Your task to perform on an android device: toggle data saver in the chrome app Image 0: 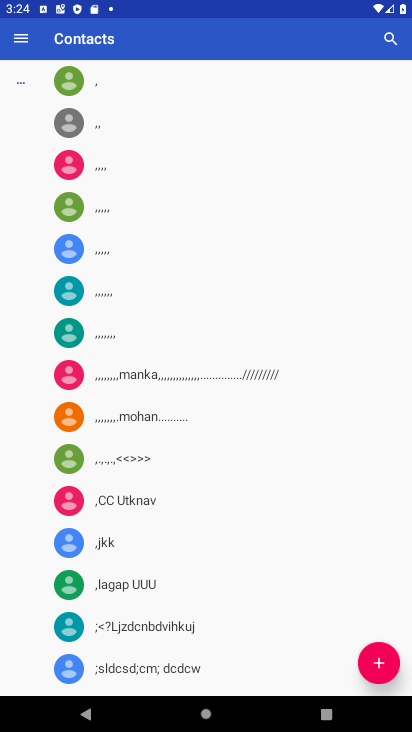
Step 0: press home button
Your task to perform on an android device: toggle data saver in the chrome app Image 1: 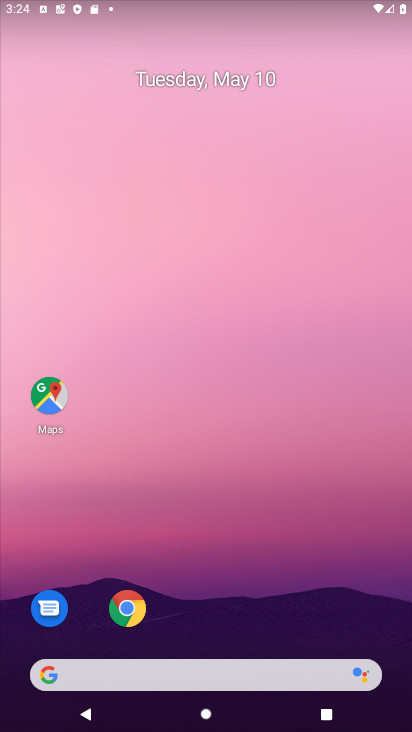
Step 1: click (126, 607)
Your task to perform on an android device: toggle data saver in the chrome app Image 2: 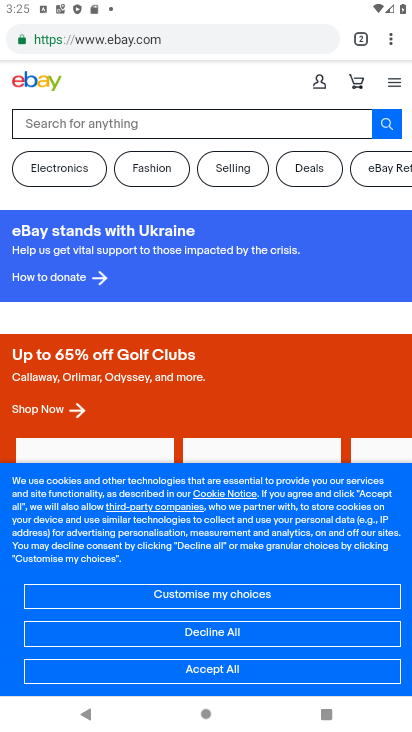
Step 2: click (385, 38)
Your task to perform on an android device: toggle data saver in the chrome app Image 3: 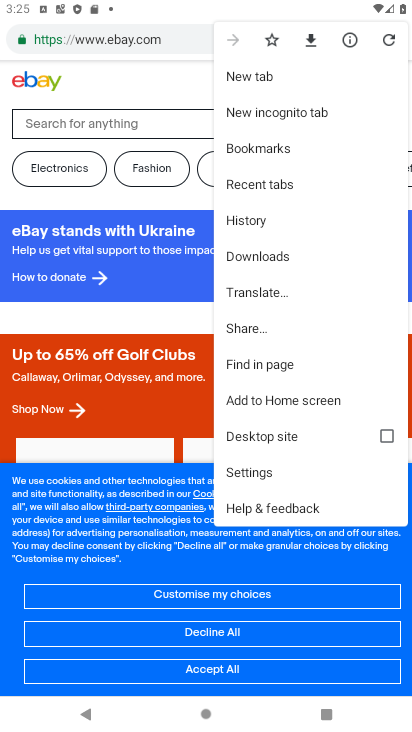
Step 3: click (250, 467)
Your task to perform on an android device: toggle data saver in the chrome app Image 4: 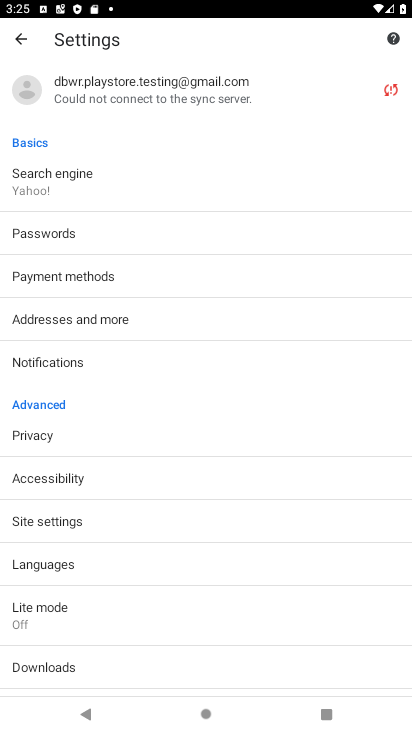
Step 4: click (42, 611)
Your task to perform on an android device: toggle data saver in the chrome app Image 5: 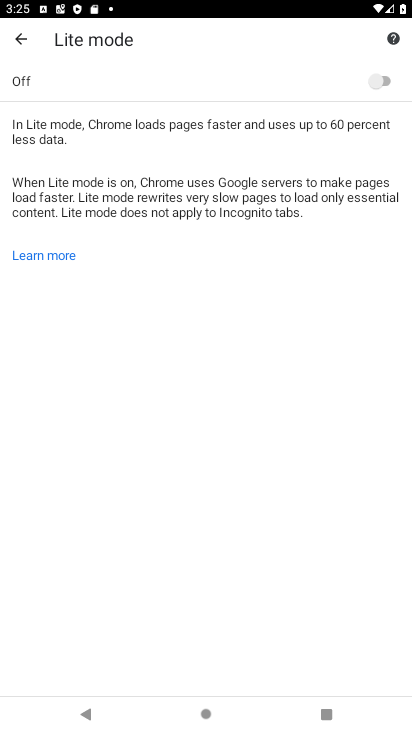
Step 5: click (385, 75)
Your task to perform on an android device: toggle data saver in the chrome app Image 6: 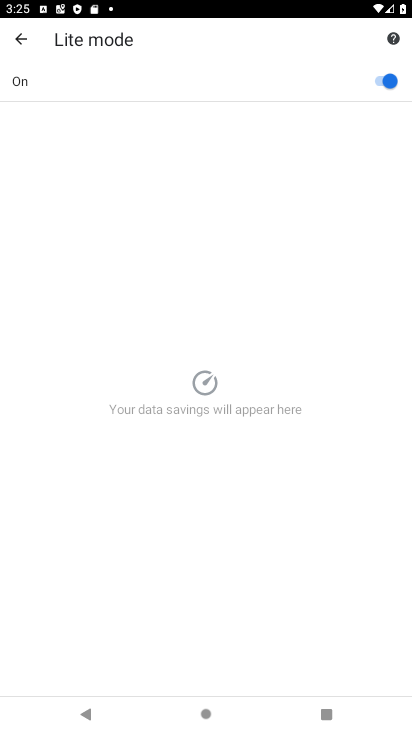
Step 6: task complete